Your task to perform on an android device: check android version Image 0: 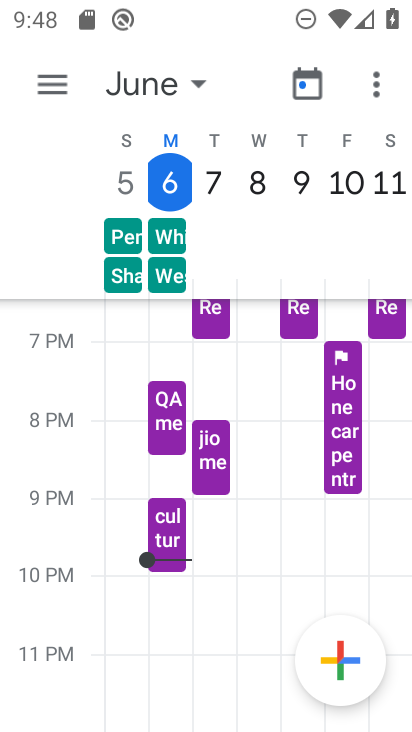
Step 0: press home button
Your task to perform on an android device: check android version Image 1: 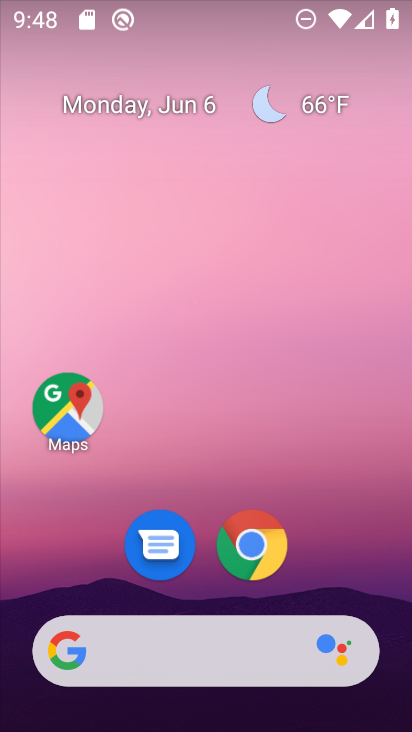
Step 1: drag from (211, 571) to (150, 210)
Your task to perform on an android device: check android version Image 2: 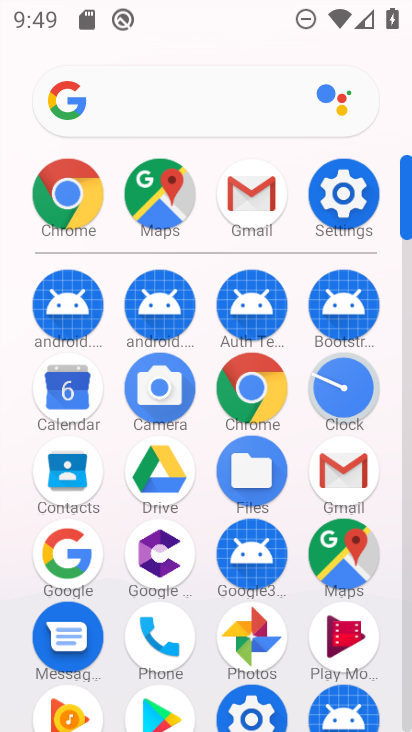
Step 2: click (346, 200)
Your task to perform on an android device: check android version Image 3: 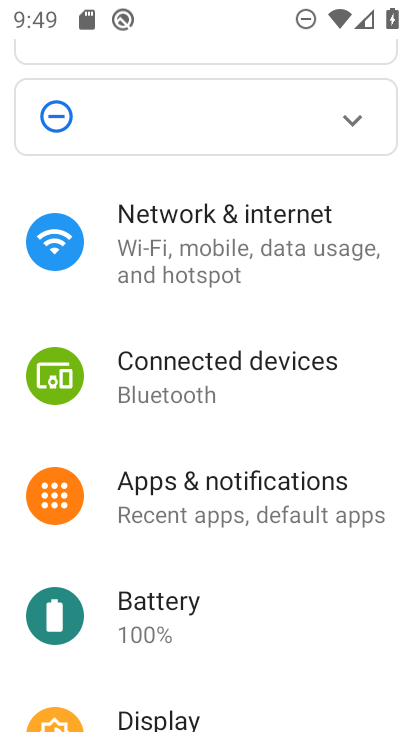
Step 3: drag from (277, 648) to (154, 172)
Your task to perform on an android device: check android version Image 4: 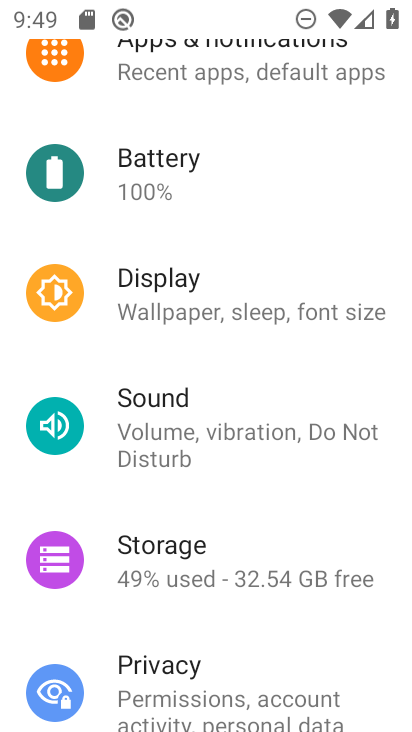
Step 4: drag from (236, 634) to (157, 123)
Your task to perform on an android device: check android version Image 5: 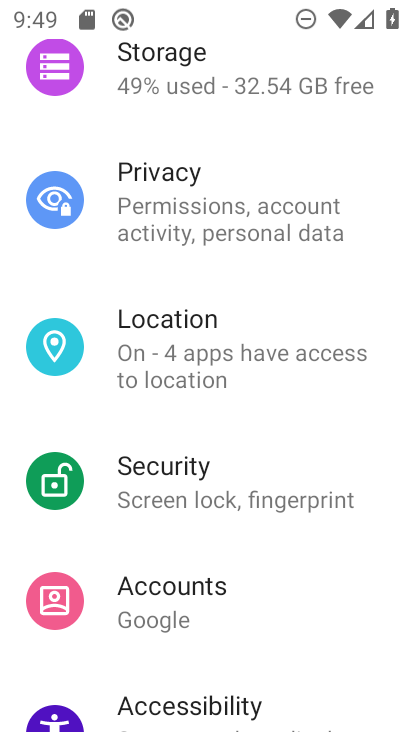
Step 5: drag from (276, 625) to (246, 324)
Your task to perform on an android device: check android version Image 6: 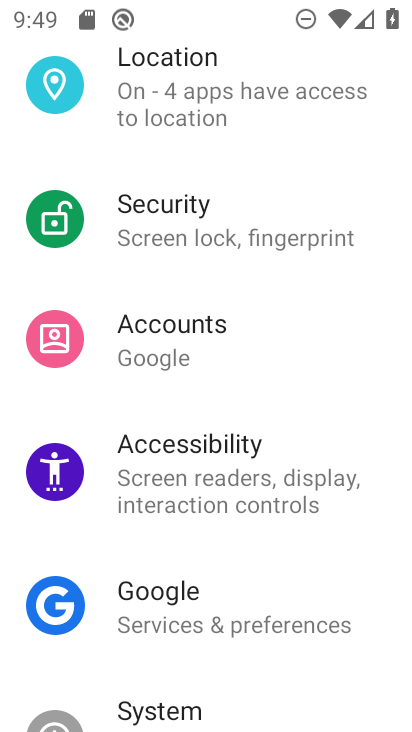
Step 6: drag from (283, 664) to (224, 332)
Your task to perform on an android device: check android version Image 7: 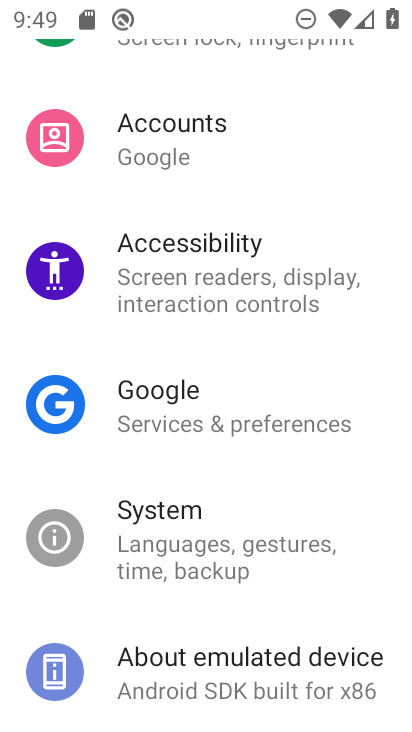
Step 7: click (219, 666)
Your task to perform on an android device: check android version Image 8: 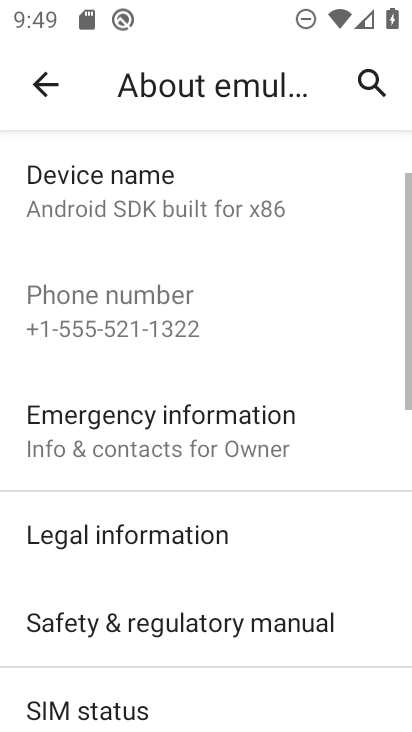
Step 8: drag from (177, 668) to (133, 235)
Your task to perform on an android device: check android version Image 9: 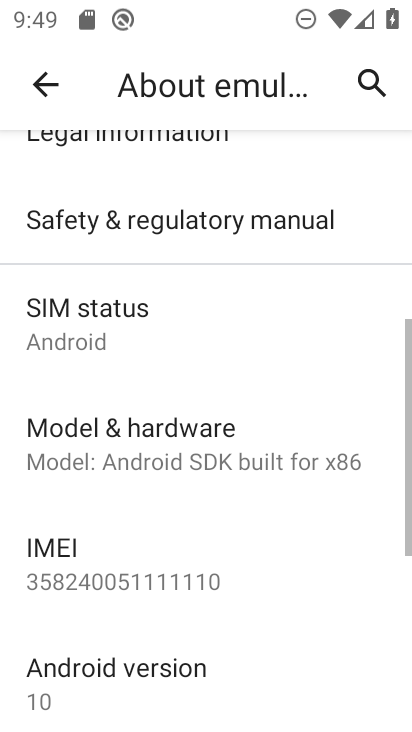
Step 9: click (173, 680)
Your task to perform on an android device: check android version Image 10: 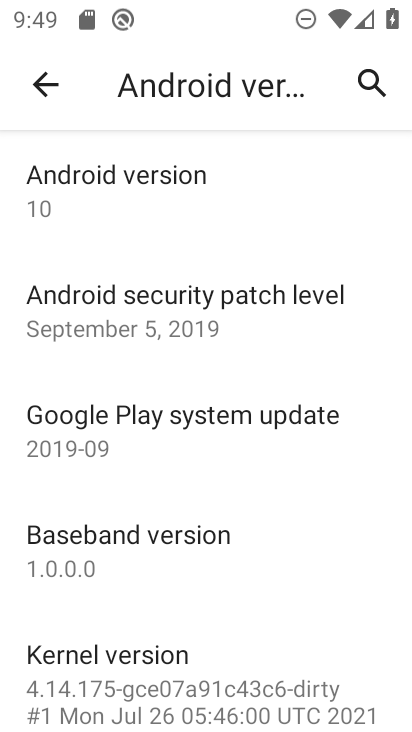
Step 10: task complete